Your task to perform on an android device: clear all cookies in the chrome app Image 0: 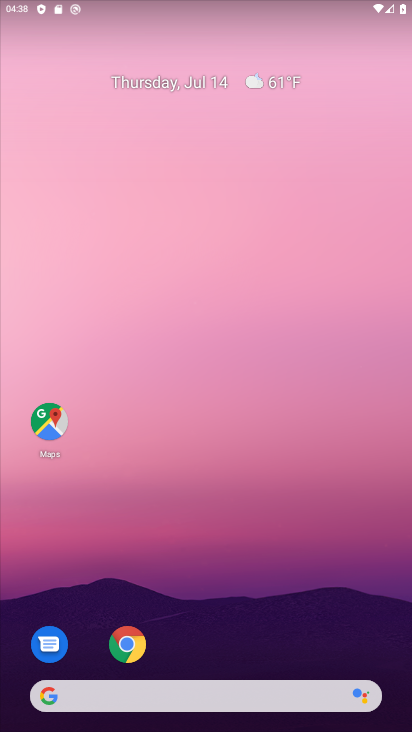
Step 0: press home button
Your task to perform on an android device: clear all cookies in the chrome app Image 1: 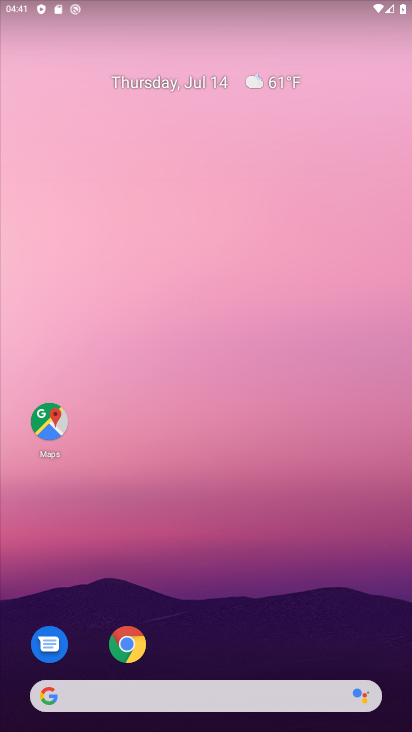
Step 1: click (132, 652)
Your task to perform on an android device: clear all cookies in the chrome app Image 2: 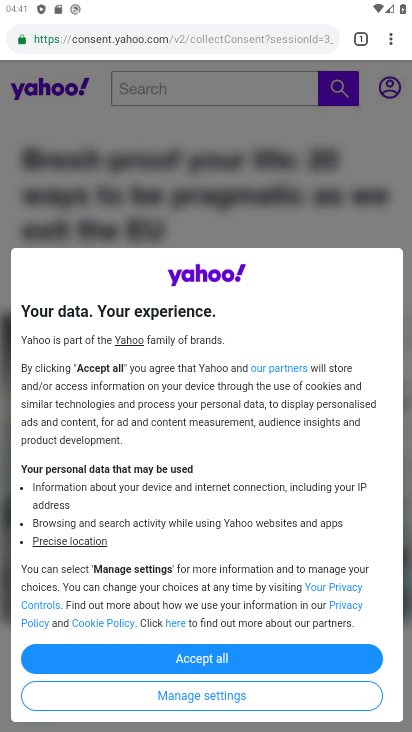
Step 2: click (391, 40)
Your task to perform on an android device: clear all cookies in the chrome app Image 3: 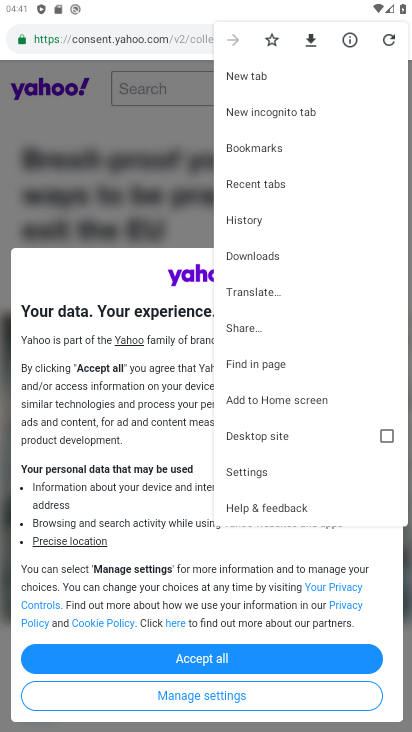
Step 3: click (251, 471)
Your task to perform on an android device: clear all cookies in the chrome app Image 4: 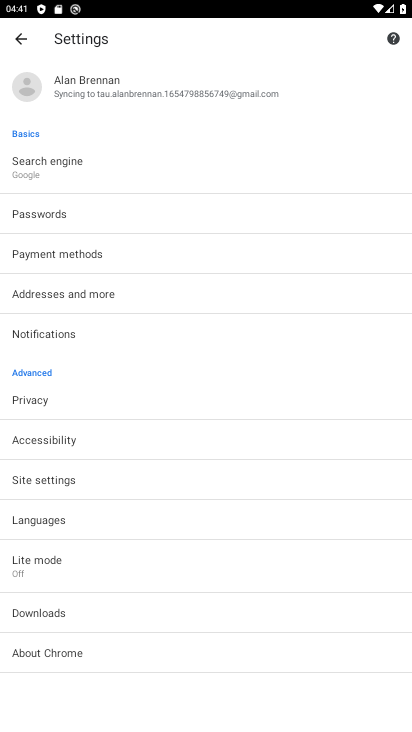
Step 4: click (47, 395)
Your task to perform on an android device: clear all cookies in the chrome app Image 5: 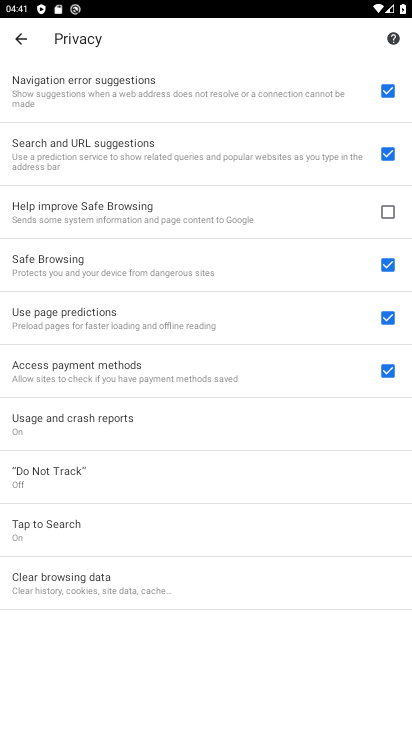
Step 5: click (35, 589)
Your task to perform on an android device: clear all cookies in the chrome app Image 6: 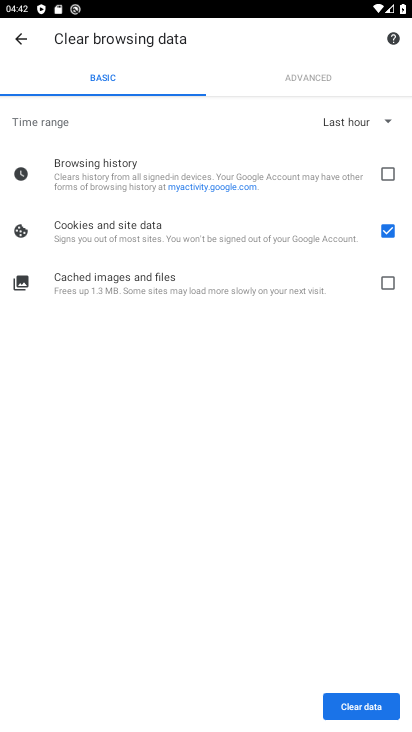
Step 6: click (365, 708)
Your task to perform on an android device: clear all cookies in the chrome app Image 7: 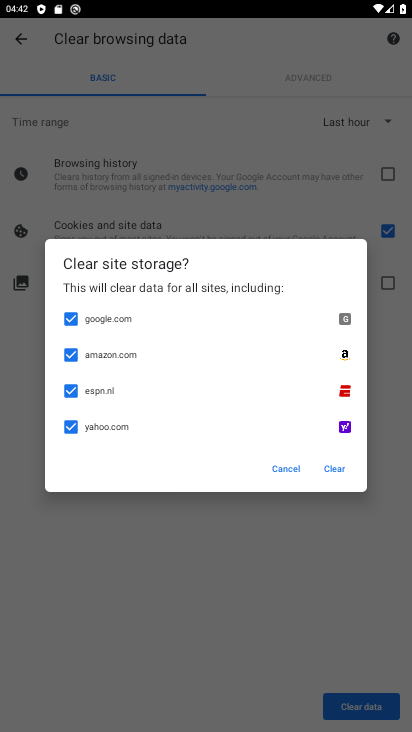
Step 7: click (330, 472)
Your task to perform on an android device: clear all cookies in the chrome app Image 8: 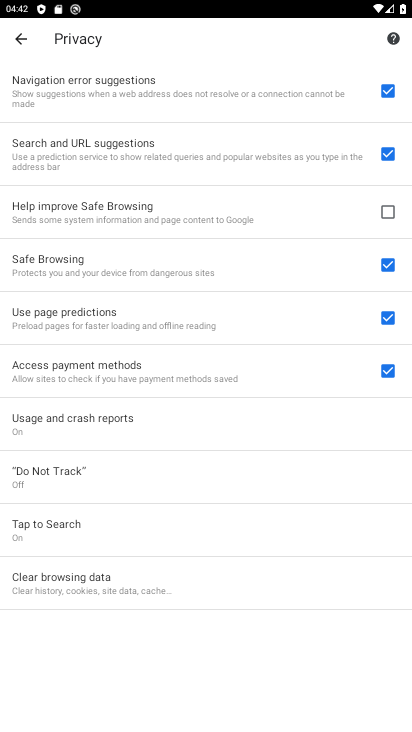
Step 8: task complete